Your task to perform on an android device: find which apps use the phone's location Image 0: 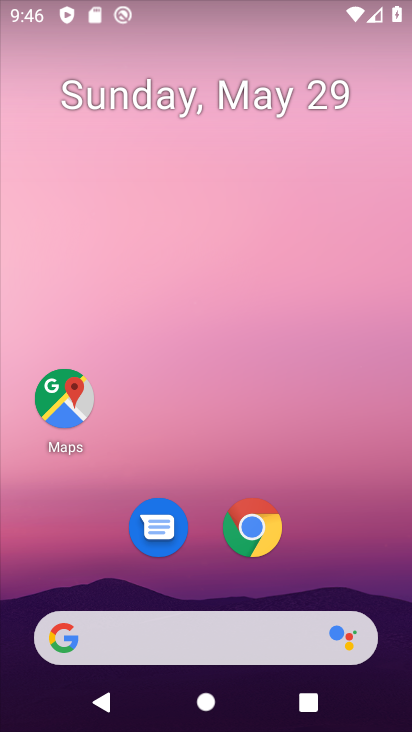
Step 0: drag from (353, 509) to (316, 112)
Your task to perform on an android device: find which apps use the phone's location Image 1: 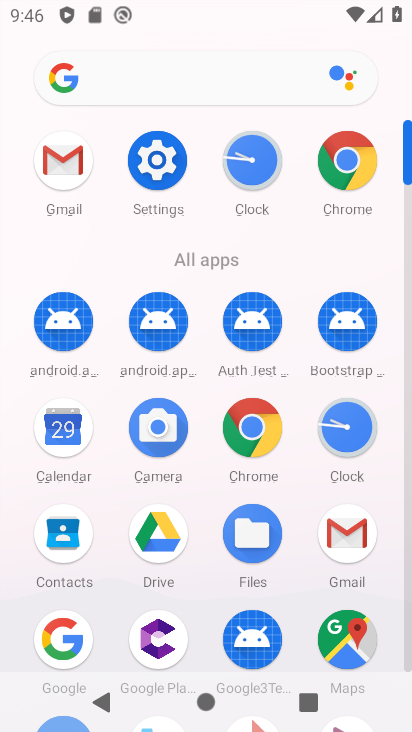
Step 1: click (158, 160)
Your task to perform on an android device: find which apps use the phone's location Image 2: 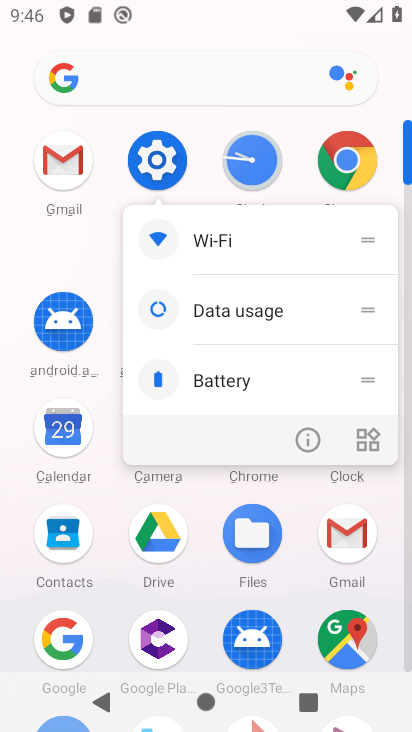
Step 2: click (158, 160)
Your task to perform on an android device: find which apps use the phone's location Image 3: 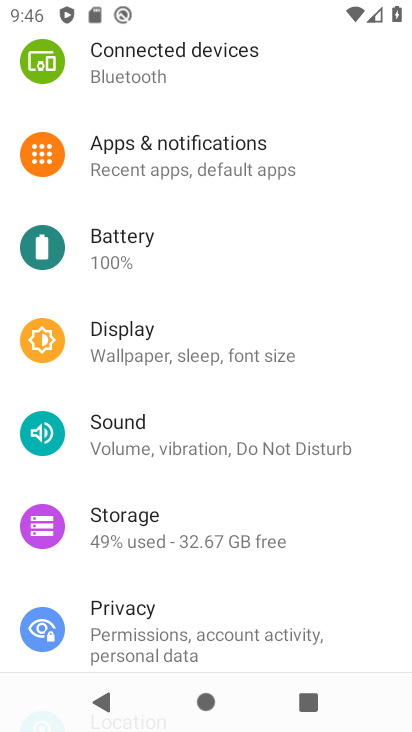
Step 3: drag from (241, 589) to (326, 196)
Your task to perform on an android device: find which apps use the phone's location Image 4: 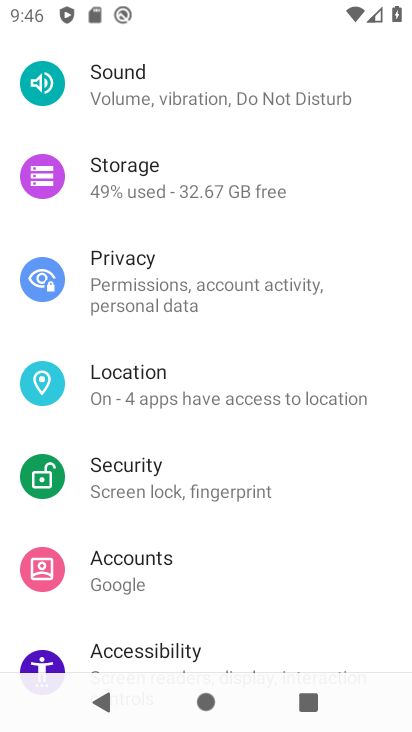
Step 4: click (236, 390)
Your task to perform on an android device: find which apps use the phone's location Image 5: 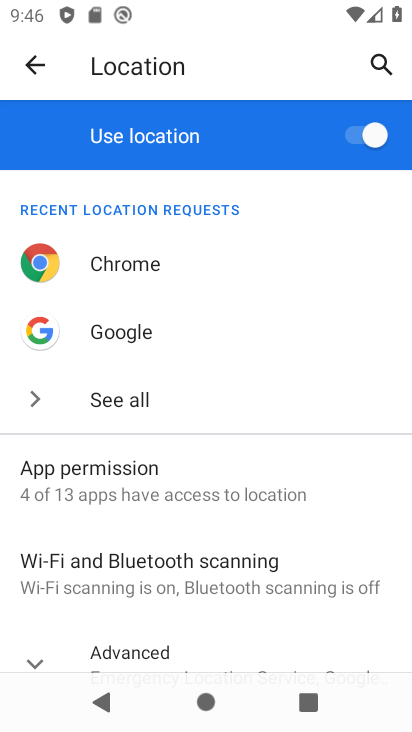
Step 5: click (234, 494)
Your task to perform on an android device: find which apps use the phone's location Image 6: 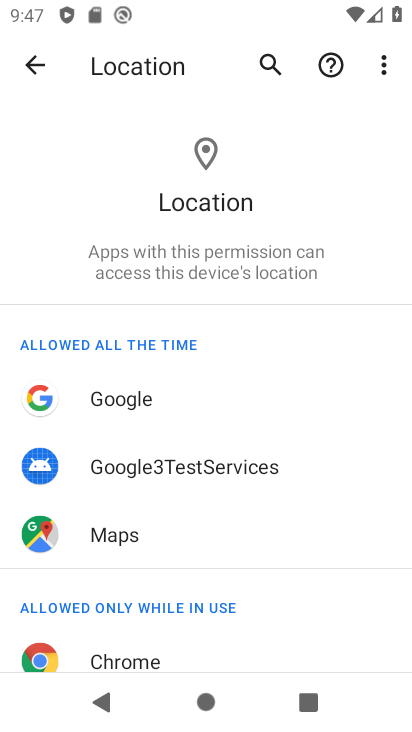
Step 6: task complete